Your task to perform on an android device: Go to Maps Image 0: 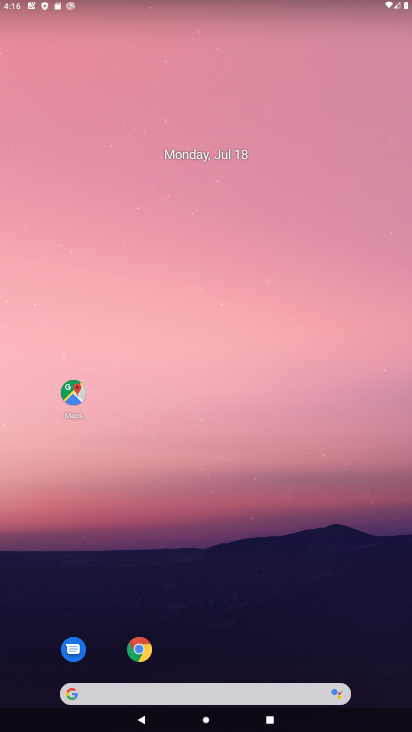
Step 0: click (75, 393)
Your task to perform on an android device: Go to Maps Image 1: 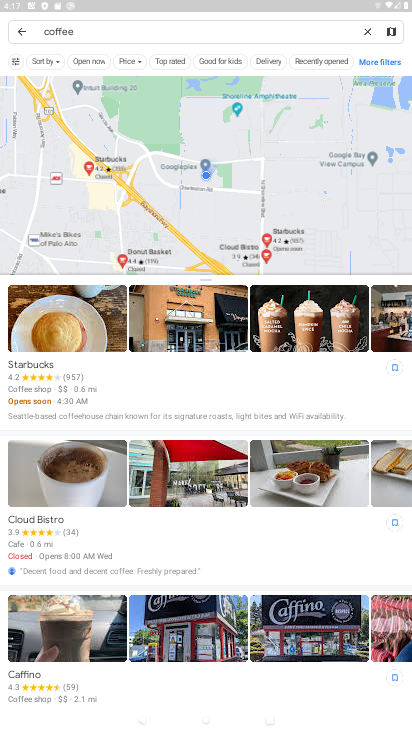
Step 1: task complete